Your task to perform on an android device: change alarm snooze length Image 0: 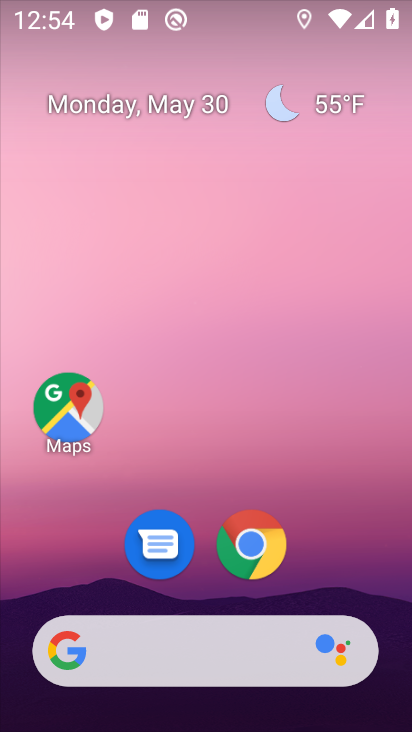
Step 0: drag from (338, 586) to (316, 1)
Your task to perform on an android device: change alarm snooze length Image 1: 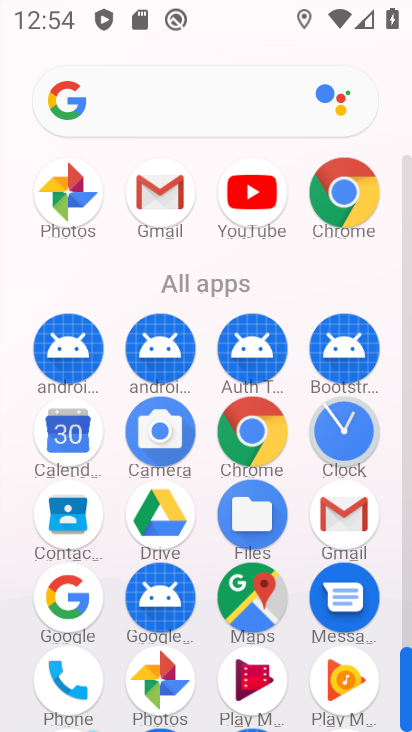
Step 1: click (336, 433)
Your task to perform on an android device: change alarm snooze length Image 2: 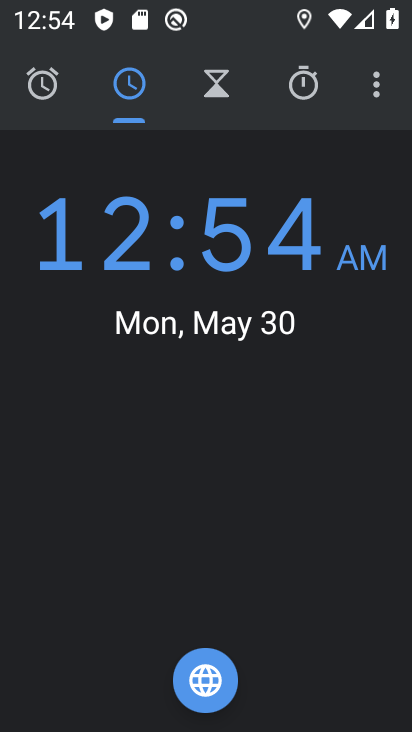
Step 2: click (380, 90)
Your task to perform on an android device: change alarm snooze length Image 3: 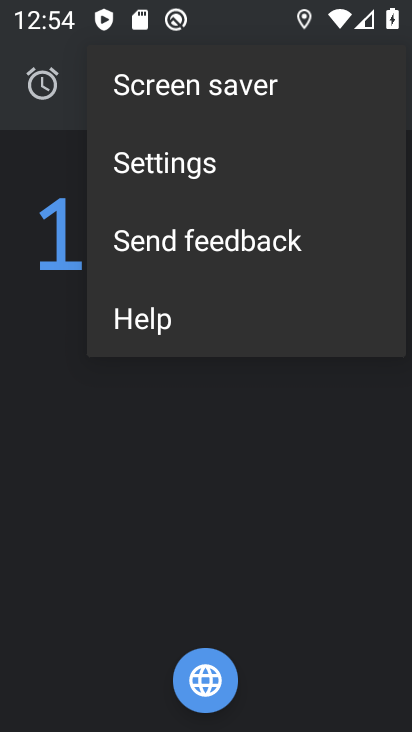
Step 3: click (205, 178)
Your task to perform on an android device: change alarm snooze length Image 4: 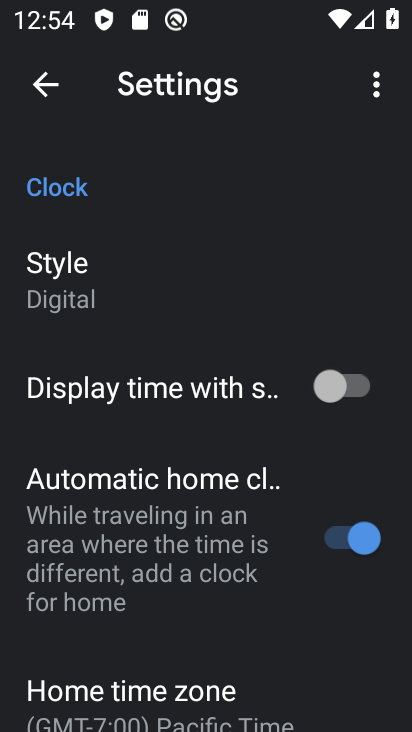
Step 4: drag from (224, 591) to (209, 226)
Your task to perform on an android device: change alarm snooze length Image 5: 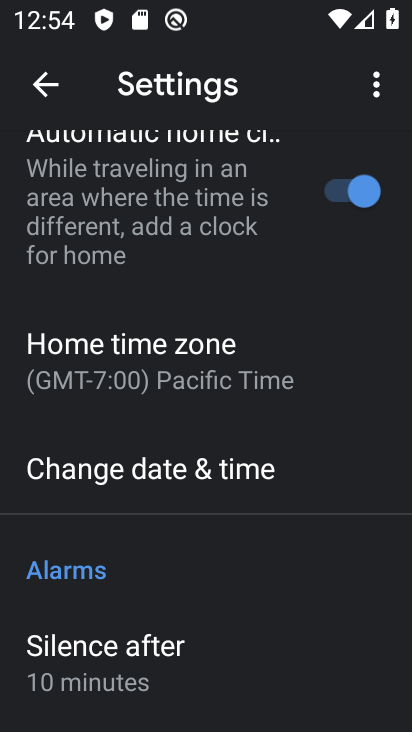
Step 5: drag from (212, 674) to (194, 333)
Your task to perform on an android device: change alarm snooze length Image 6: 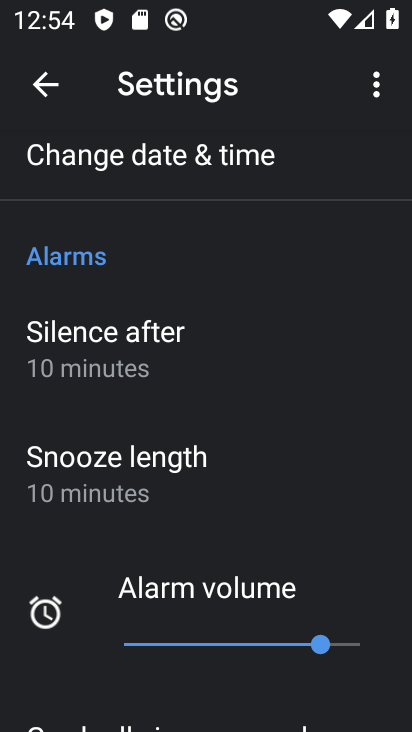
Step 6: click (170, 455)
Your task to perform on an android device: change alarm snooze length Image 7: 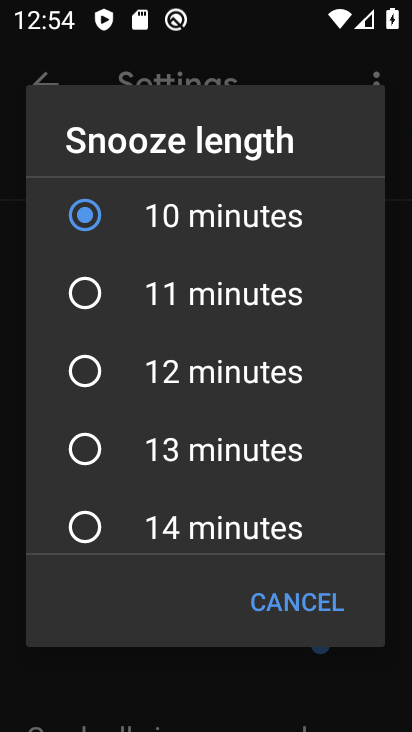
Step 7: drag from (184, 527) to (190, 377)
Your task to perform on an android device: change alarm snooze length Image 8: 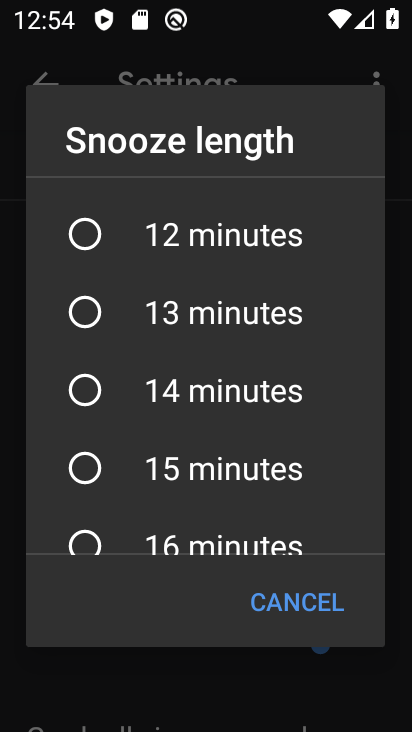
Step 8: click (83, 476)
Your task to perform on an android device: change alarm snooze length Image 9: 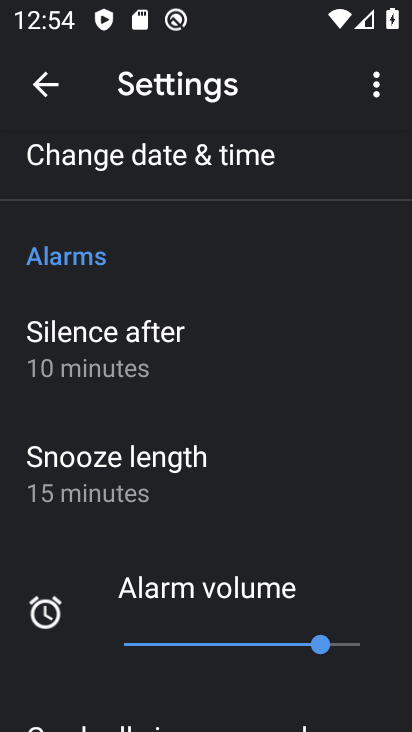
Step 9: task complete